Your task to perform on an android device: uninstall "Google Chat" Image 0: 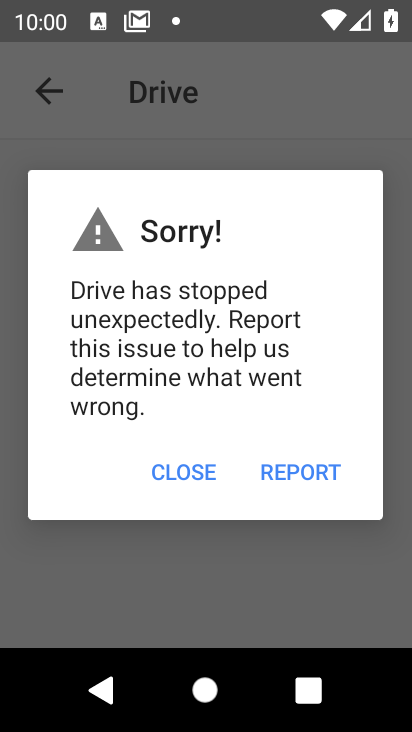
Step 0: press home button
Your task to perform on an android device: uninstall "Google Chat" Image 1: 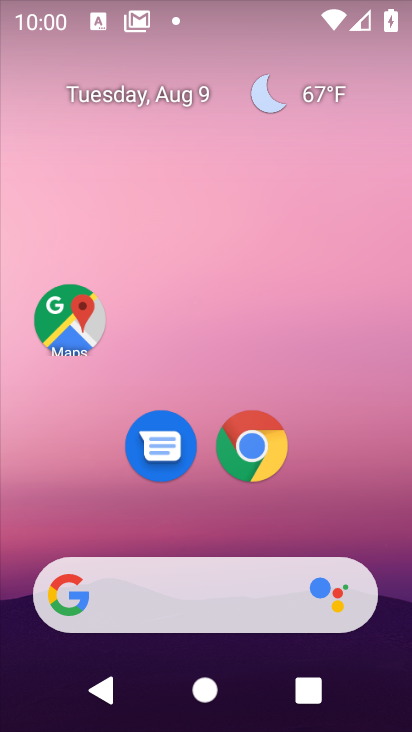
Step 1: drag from (174, 533) to (264, 36)
Your task to perform on an android device: uninstall "Google Chat" Image 2: 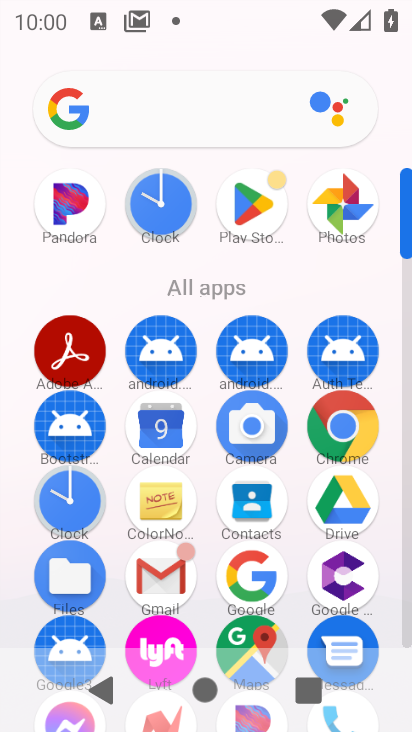
Step 2: click (243, 204)
Your task to perform on an android device: uninstall "Google Chat" Image 3: 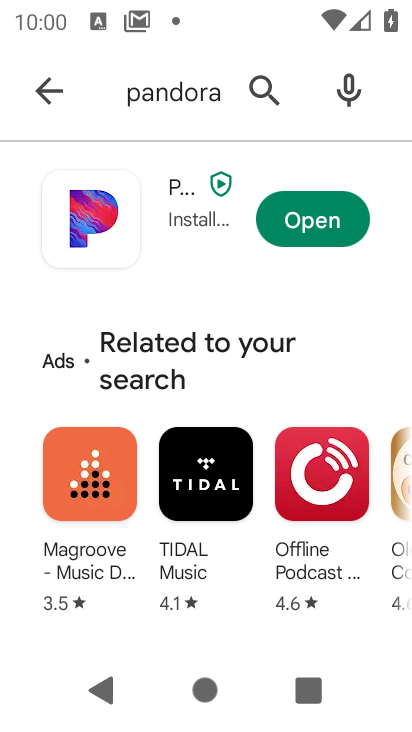
Step 3: click (265, 68)
Your task to perform on an android device: uninstall "Google Chat" Image 4: 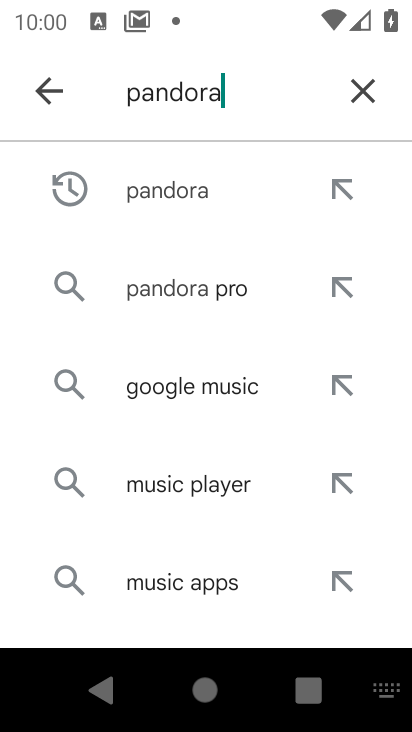
Step 4: click (356, 82)
Your task to perform on an android device: uninstall "Google Chat" Image 5: 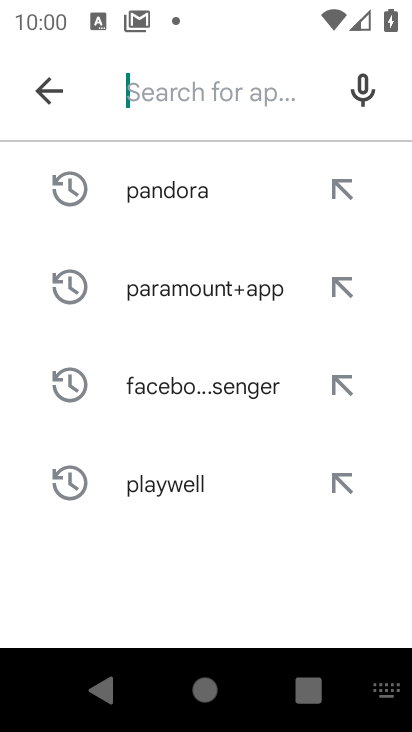
Step 5: click (158, 85)
Your task to perform on an android device: uninstall "Google Chat" Image 6: 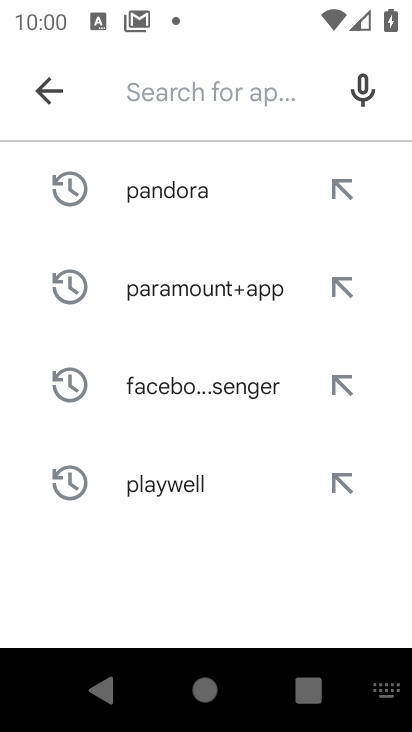
Step 6: click (155, 100)
Your task to perform on an android device: uninstall "Google Chat" Image 7: 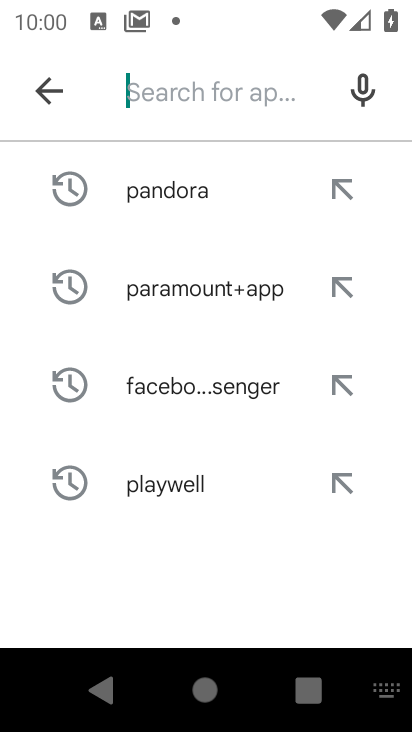
Step 7: type "Google Chat"
Your task to perform on an android device: uninstall "Google Chat" Image 8: 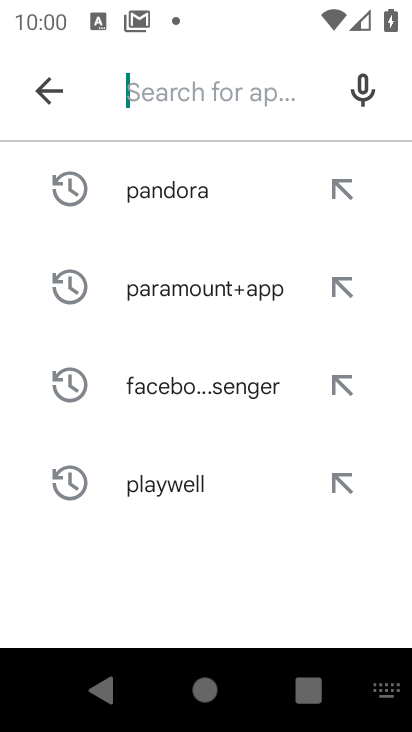
Step 8: click (276, 548)
Your task to perform on an android device: uninstall "Google Chat" Image 9: 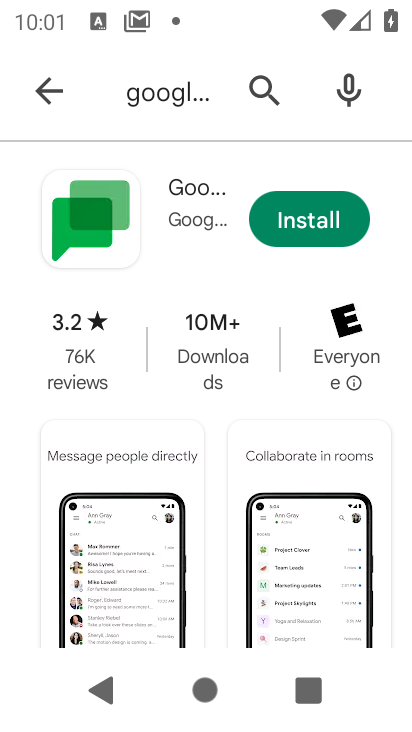
Step 9: task complete